Your task to perform on an android device: stop showing notifications on the lock screen Image 0: 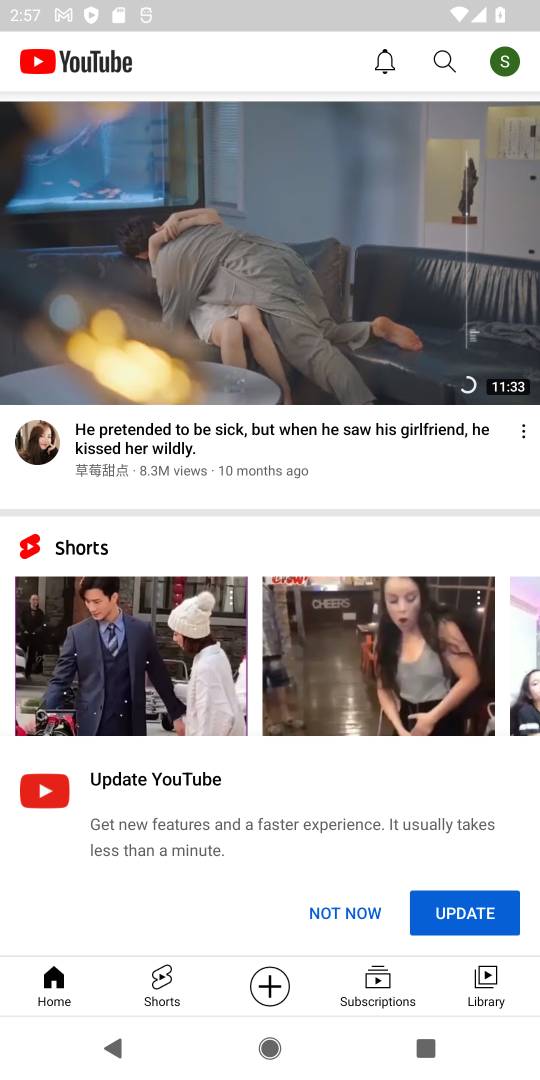
Step 0: press home button
Your task to perform on an android device: stop showing notifications on the lock screen Image 1: 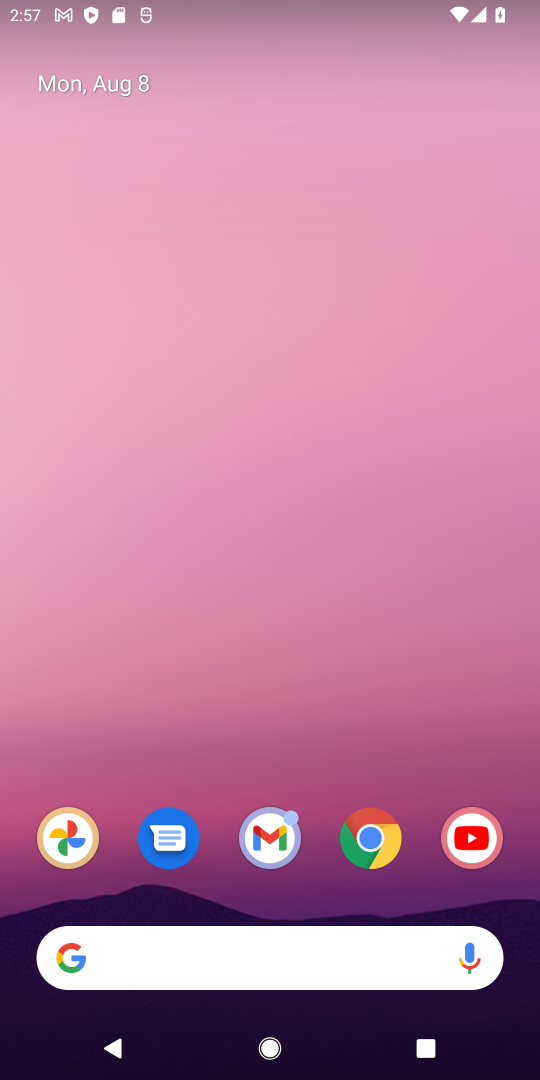
Step 1: drag from (204, 967) to (189, 387)
Your task to perform on an android device: stop showing notifications on the lock screen Image 2: 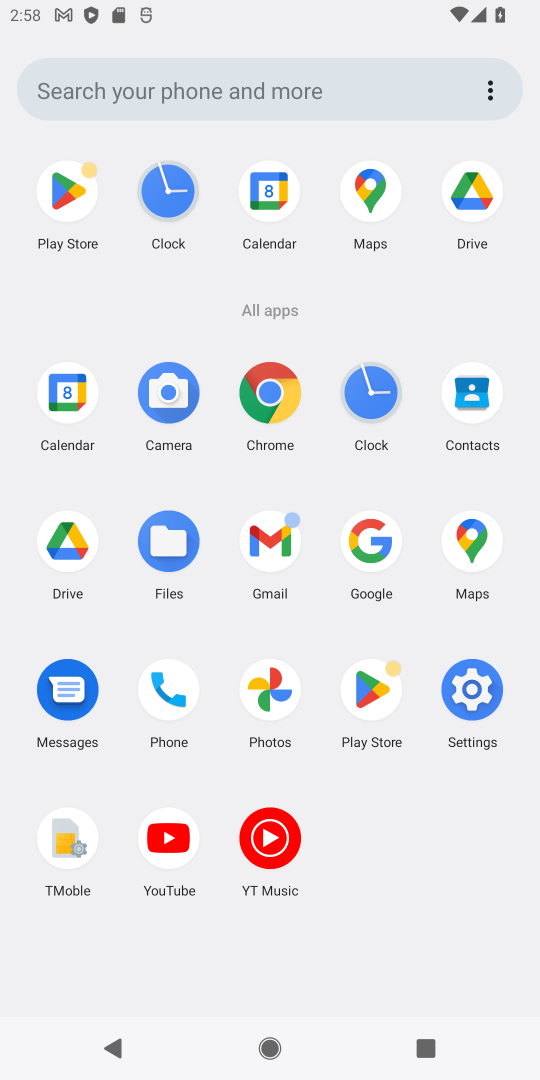
Step 2: click (473, 689)
Your task to perform on an android device: stop showing notifications on the lock screen Image 3: 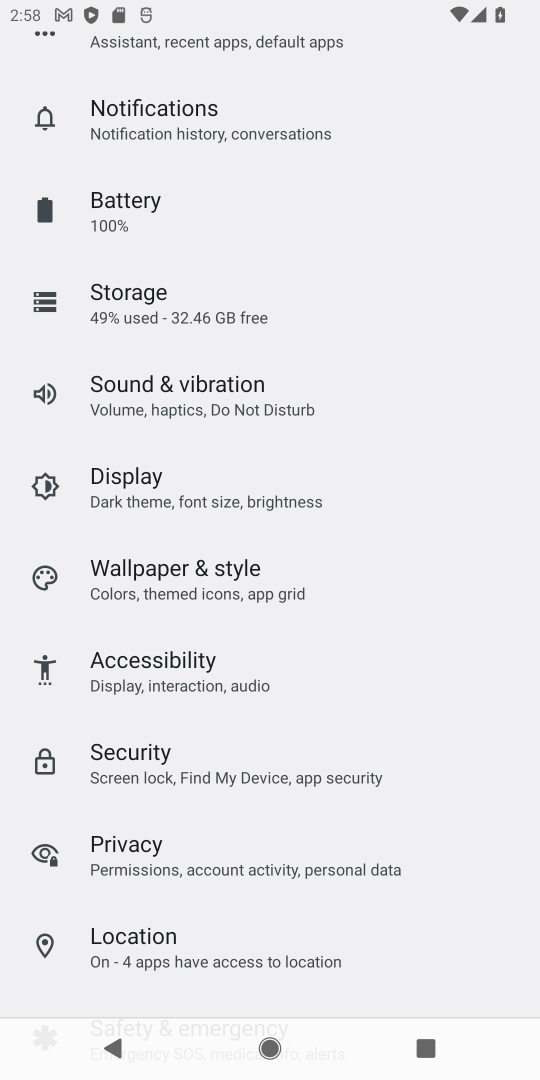
Step 3: drag from (217, 270) to (224, 410)
Your task to perform on an android device: stop showing notifications on the lock screen Image 4: 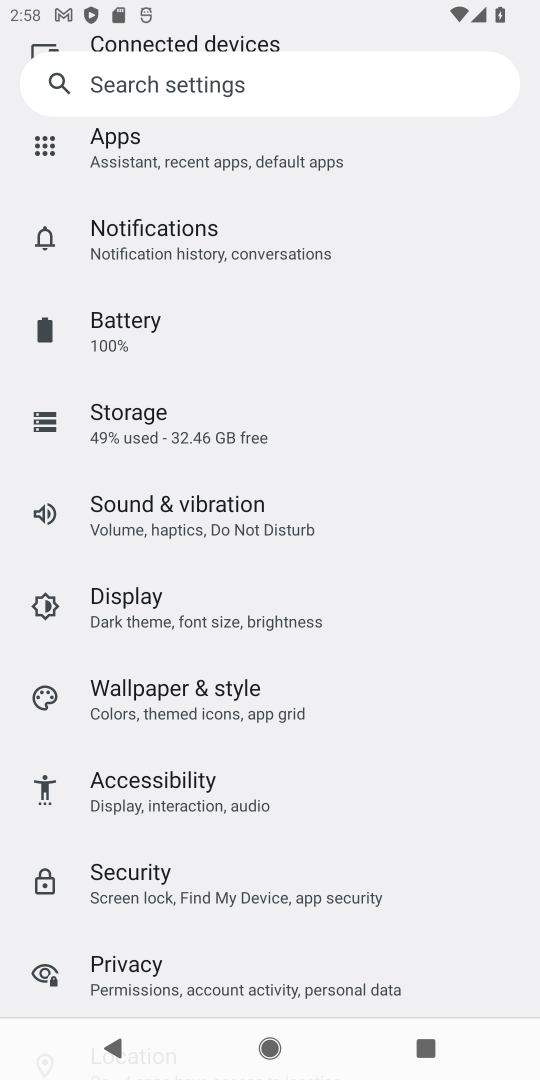
Step 4: drag from (194, 199) to (244, 340)
Your task to perform on an android device: stop showing notifications on the lock screen Image 5: 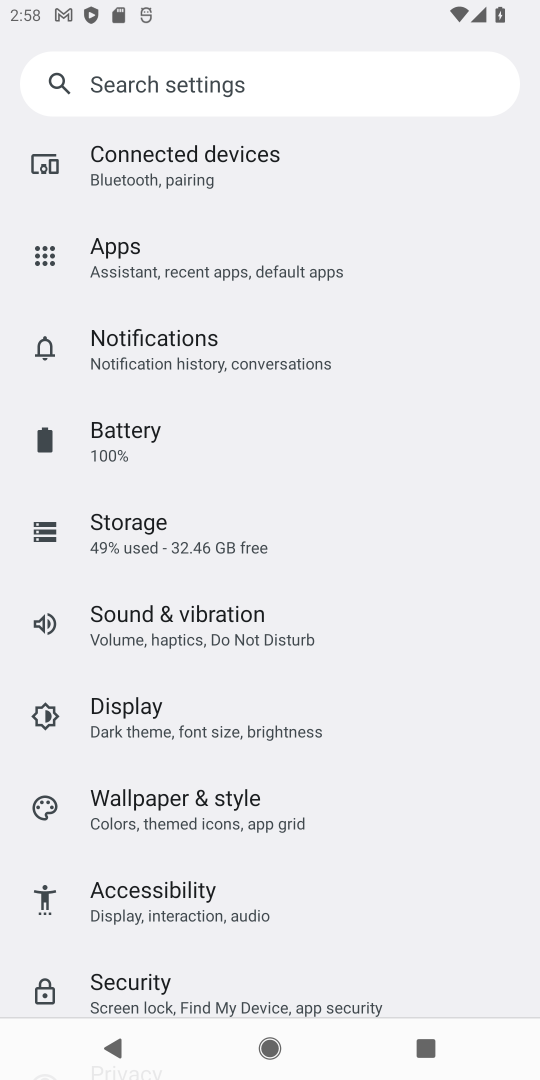
Step 5: click (209, 370)
Your task to perform on an android device: stop showing notifications on the lock screen Image 6: 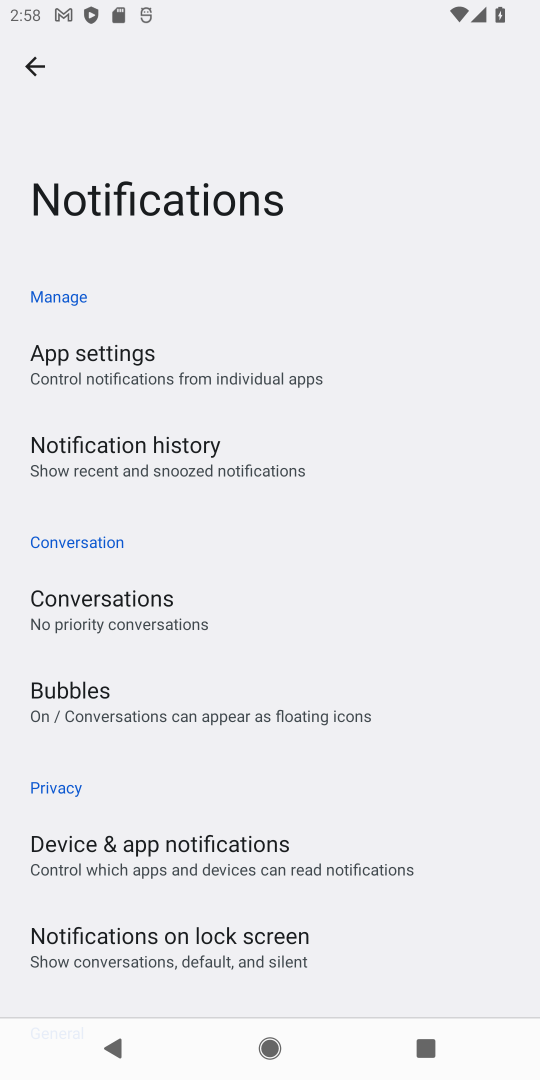
Step 6: drag from (167, 795) to (240, 640)
Your task to perform on an android device: stop showing notifications on the lock screen Image 7: 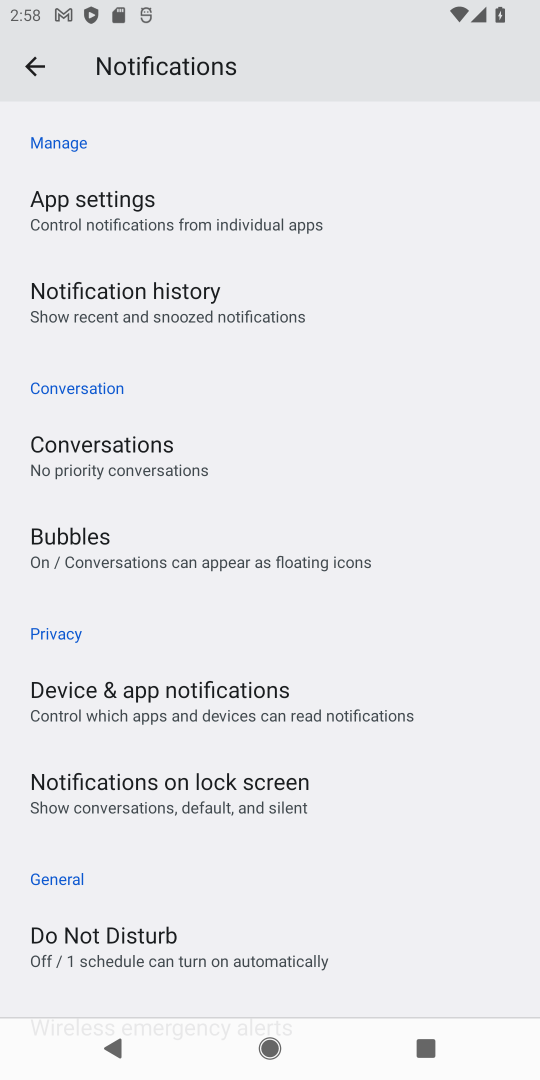
Step 7: click (199, 802)
Your task to perform on an android device: stop showing notifications on the lock screen Image 8: 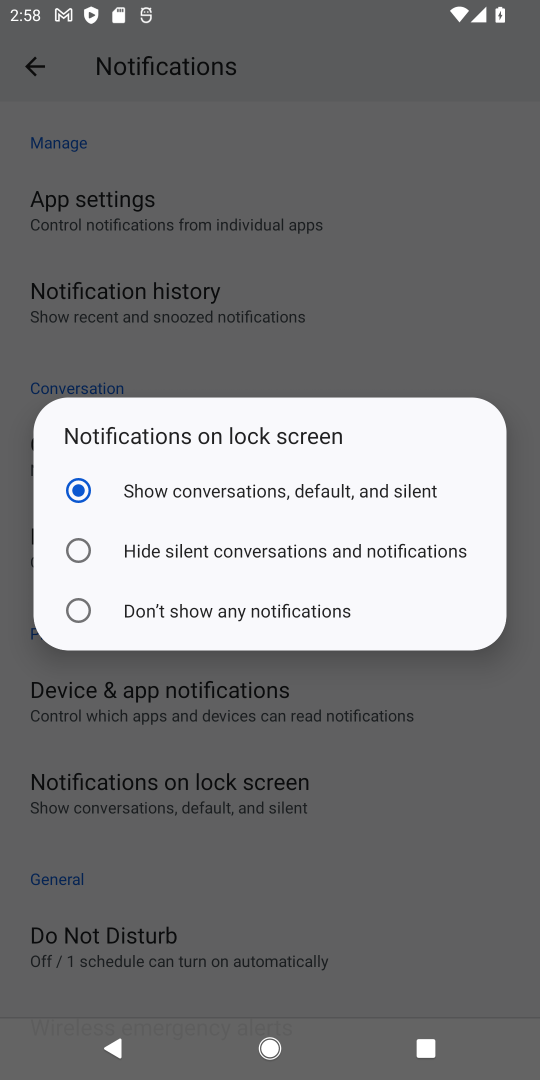
Step 8: click (76, 614)
Your task to perform on an android device: stop showing notifications on the lock screen Image 9: 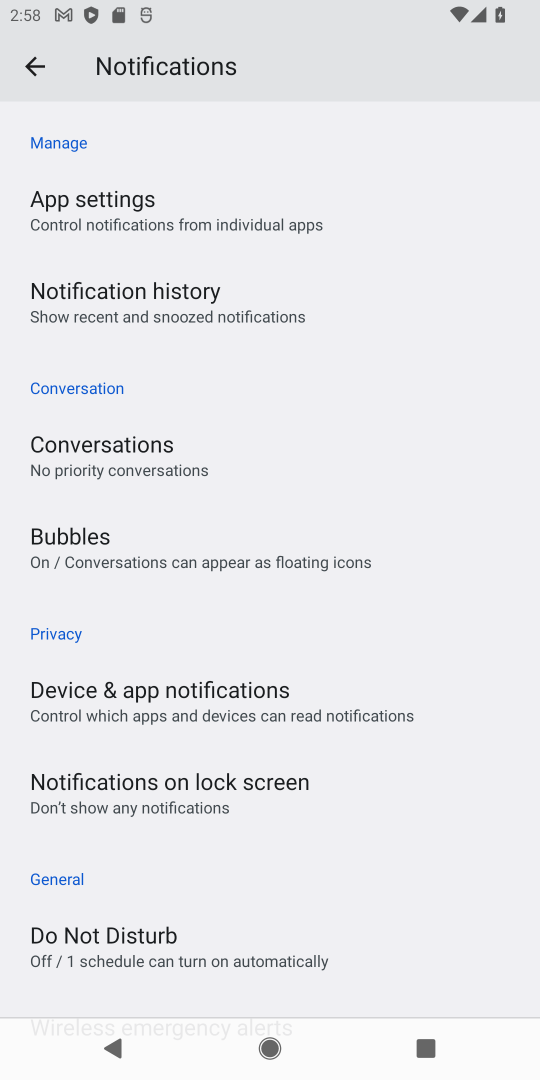
Step 9: task complete